Your task to perform on an android device: turn off picture-in-picture Image 0: 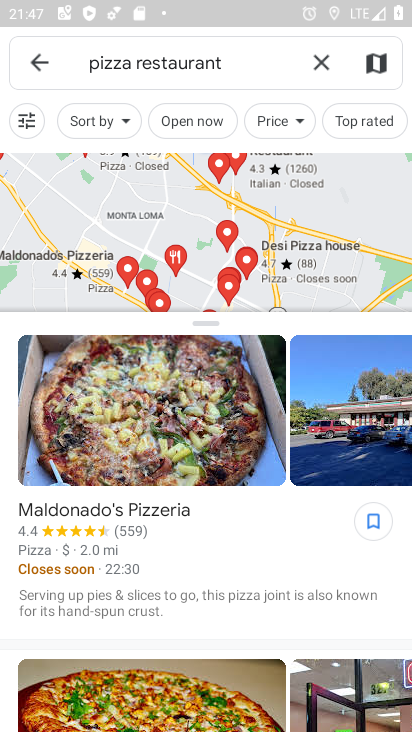
Step 0: press back button
Your task to perform on an android device: turn off picture-in-picture Image 1: 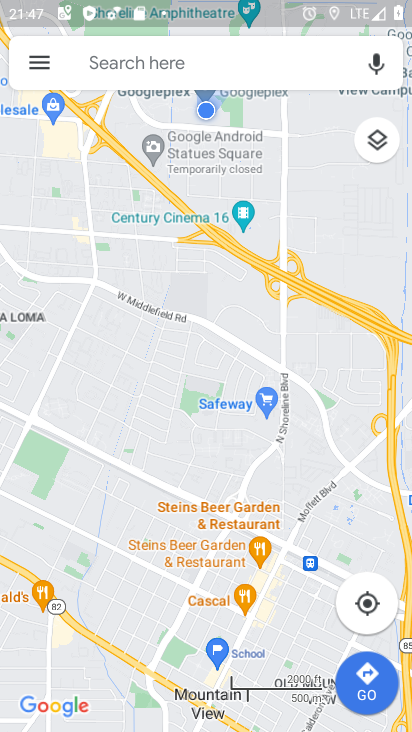
Step 1: press back button
Your task to perform on an android device: turn off picture-in-picture Image 2: 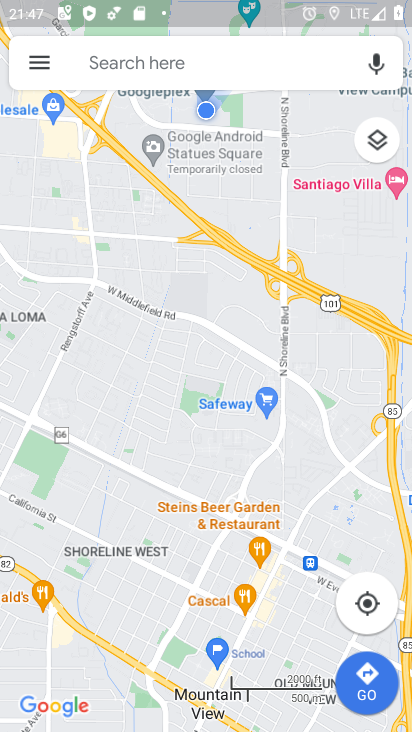
Step 2: press back button
Your task to perform on an android device: turn off picture-in-picture Image 3: 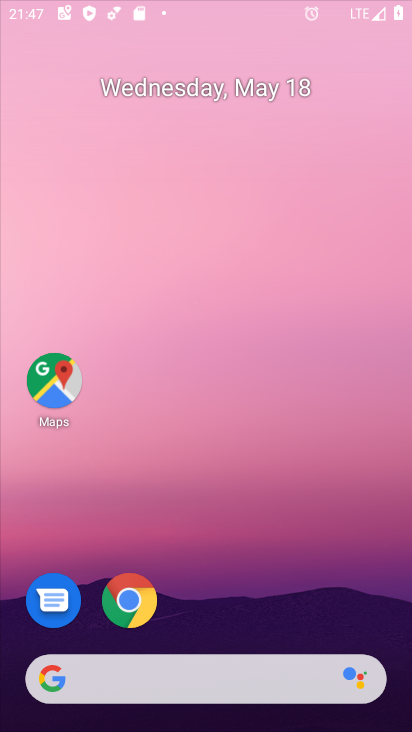
Step 3: press back button
Your task to perform on an android device: turn off picture-in-picture Image 4: 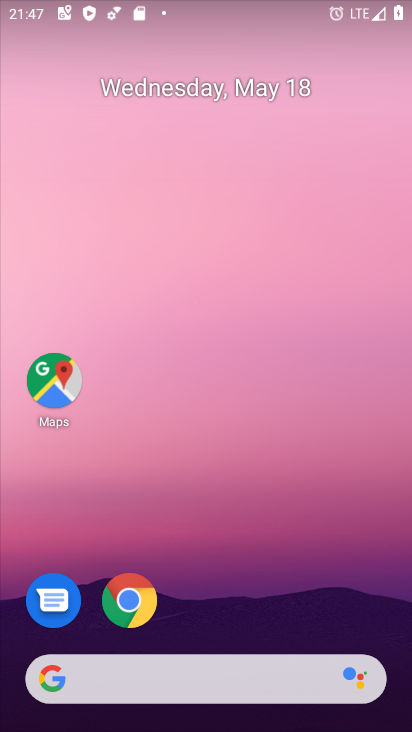
Step 4: drag from (183, 669) to (332, 5)
Your task to perform on an android device: turn off picture-in-picture Image 5: 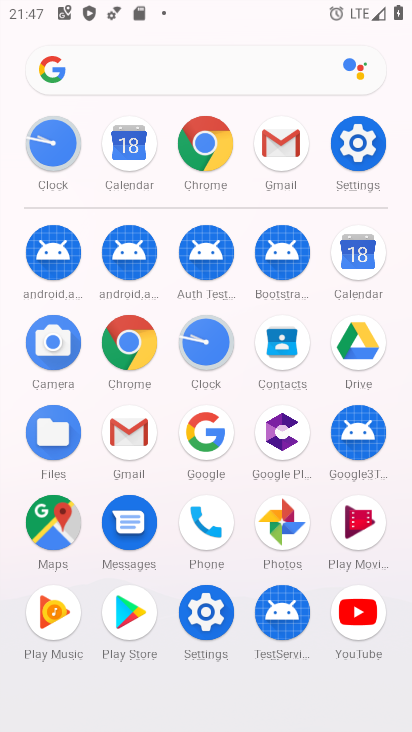
Step 5: click (361, 141)
Your task to perform on an android device: turn off picture-in-picture Image 6: 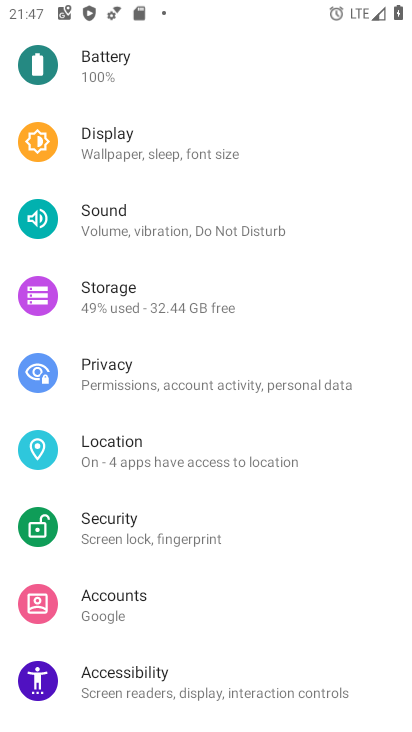
Step 6: drag from (203, 134) to (165, 686)
Your task to perform on an android device: turn off picture-in-picture Image 7: 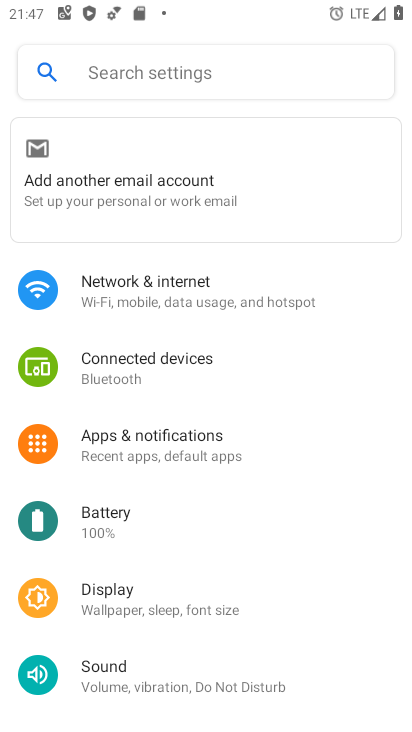
Step 7: click (158, 457)
Your task to perform on an android device: turn off picture-in-picture Image 8: 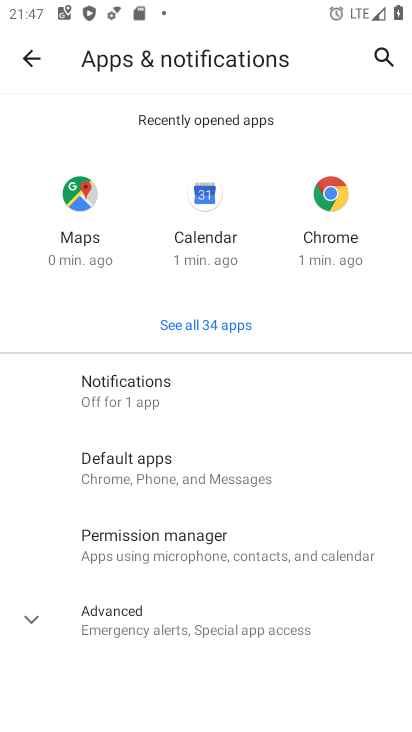
Step 8: click (111, 627)
Your task to perform on an android device: turn off picture-in-picture Image 9: 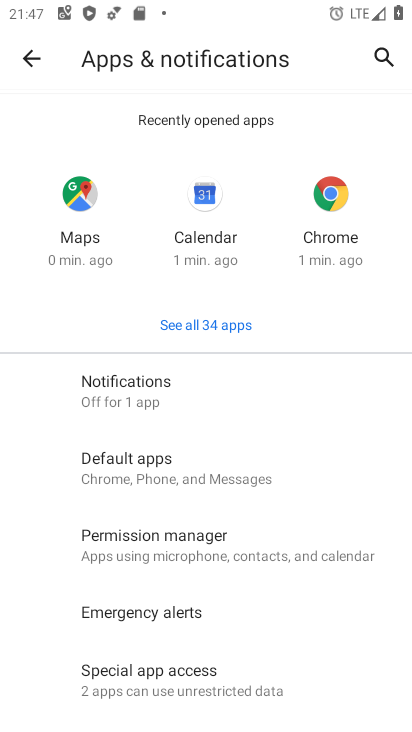
Step 9: drag from (154, 570) to (320, 122)
Your task to perform on an android device: turn off picture-in-picture Image 10: 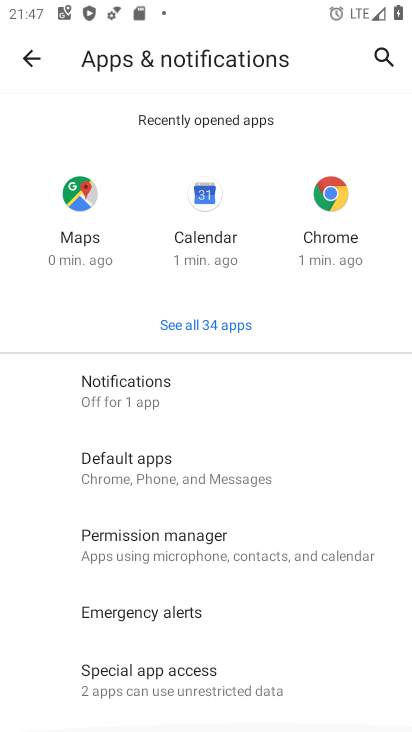
Step 10: click (194, 695)
Your task to perform on an android device: turn off picture-in-picture Image 11: 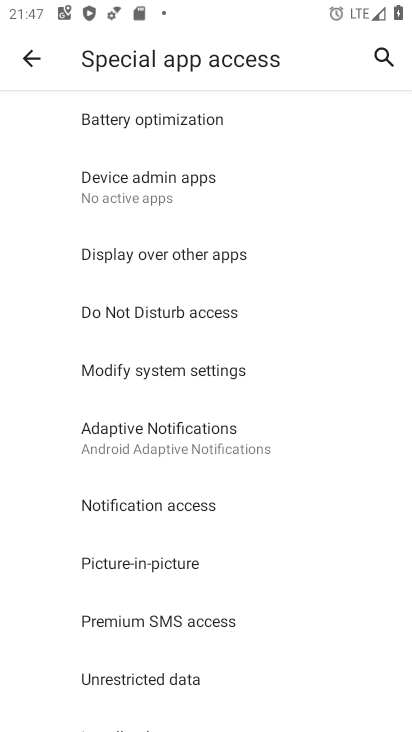
Step 11: drag from (167, 654) to (298, 180)
Your task to perform on an android device: turn off picture-in-picture Image 12: 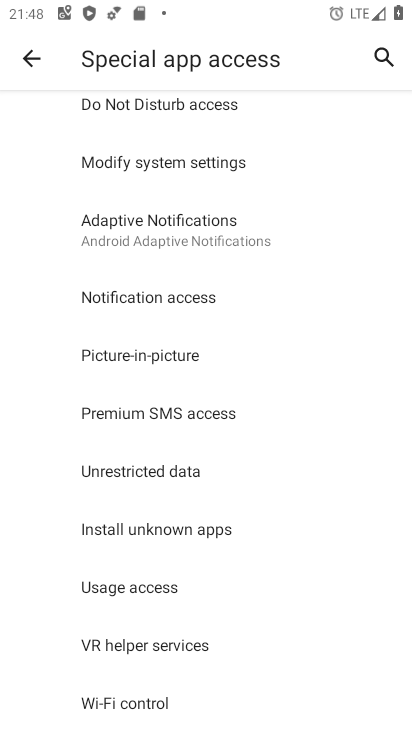
Step 12: click (103, 351)
Your task to perform on an android device: turn off picture-in-picture Image 13: 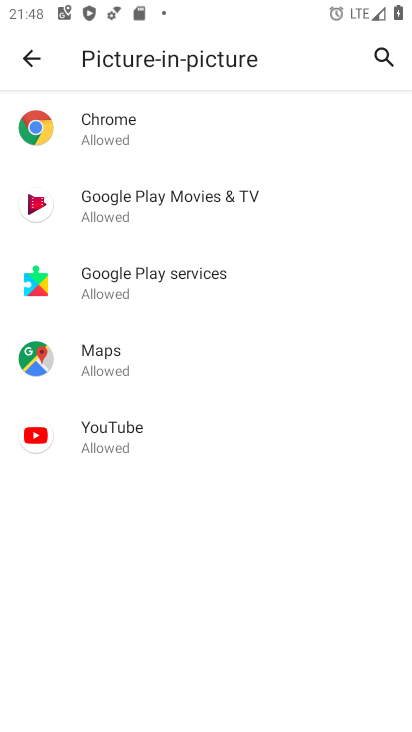
Step 13: click (131, 128)
Your task to perform on an android device: turn off picture-in-picture Image 14: 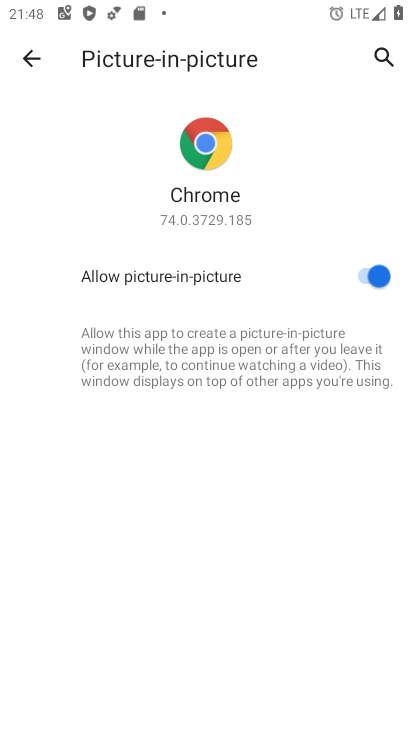
Step 14: click (371, 275)
Your task to perform on an android device: turn off picture-in-picture Image 15: 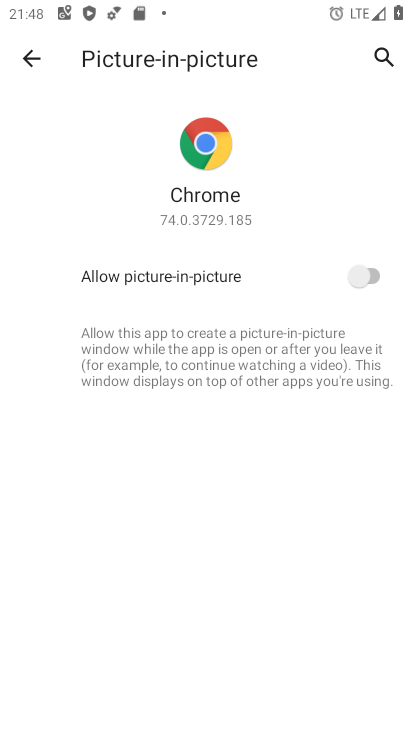
Step 15: task complete